Your task to perform on an android device: open app "eBay: The shopping marketplace" (install if not already installed) and enter user name: "articulated@icloud.com" and password: "excluding" Image 0: 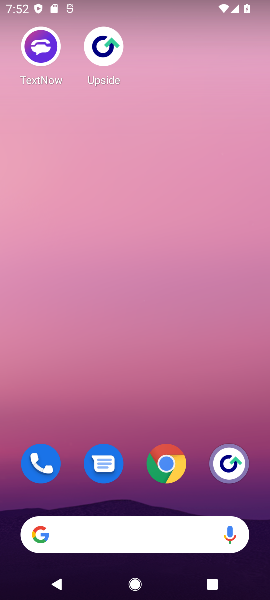
Step 0: drag from (126, 176) to (187, 12)
Your task to perform on an android device: open app "eBay: The shopping marketplace" (install if not already installed) and enter user name: "articulated@icloud.com" and password: "excluding" Image 1: 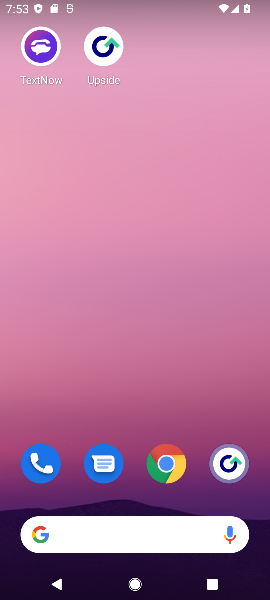
Step 1: drag from (118, 490) to (172, 0)
Your task to perform on an android device: open app "eBay: The shopping marketplace" (install if not already installed) and enter user name: "articulated@icloud.com" and password: "excluding" Image 2: 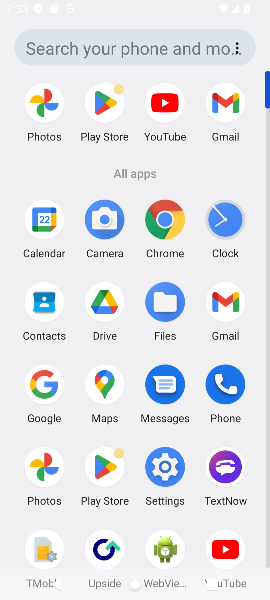
Step 2: click (105, 87)
Your task to perform on an android device: open app "eBay: The shopping marketplace" (install if not already installed) and enter user name: "articulated@icloud.com" and password: "excluding" Image 3: 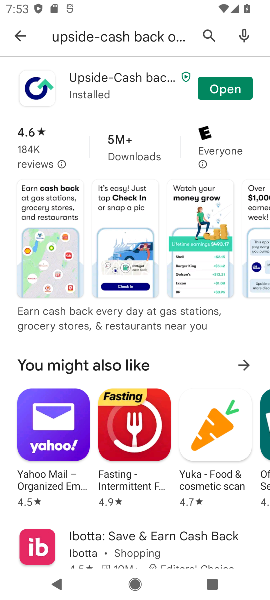
Step 3: click (20, 31)
Your task to perform on an android device: open app "eBay: The shopping marketplace" (install if not already installed) and enter user name: "articulated@icloud.com" and password: "excluding" Image 4: 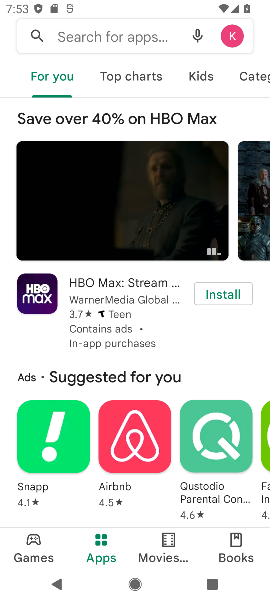
Step 4: click (64, 32)
Your task to perform on an android device: open app "eBay: The shopping marketplace" (install if not already installed) and enter user name: "articulated@icloud.com" and password: "excluding" Image 5: 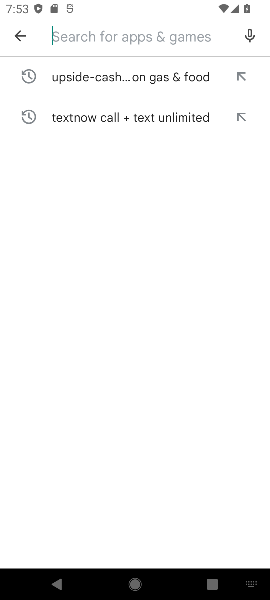
Step 5: type "eBay"
Your task to perform on an android device: open app "eBay: The shopping marketplace" (install if not already installed) and enter user name: "articulated@icloud.com" and password: "excluding" Image 6: 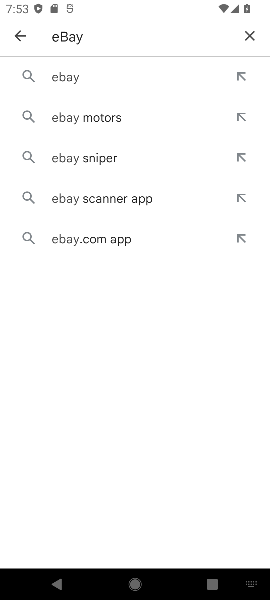
Step 6: click (66, 80)
Your task to perform on an android device: open app "eBay: The shopping marketplace" (install if not already installed) and enter user name: "articulated@icloud.com" and password: "excluding" Image 7: 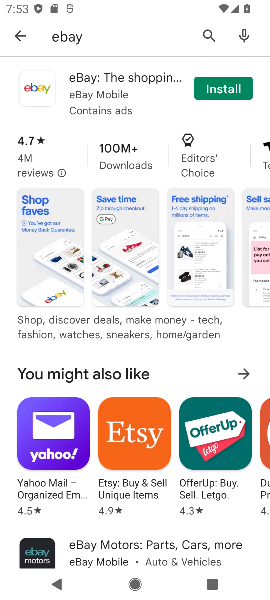
Step 7: click (217, 86)
Your task to perform on an android device: open app "eBay: The shopping marketplace" (install if not already installed) and enter user name: "articulated@icloud.com" and password: "excluding" Image 8: 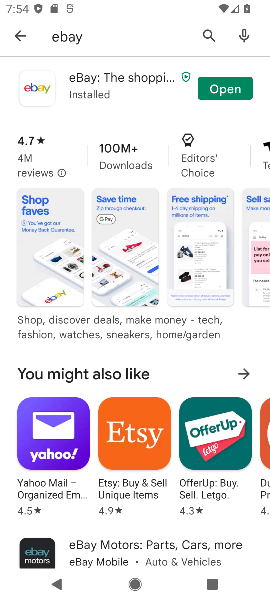
Step 8: click (228, 86)
Your task to perform on an android device: open app "eBay: The shopping marketplace" (install if not already installed) and enter user name: "articulated@icloud.com" and password: "excluding" Image 9: 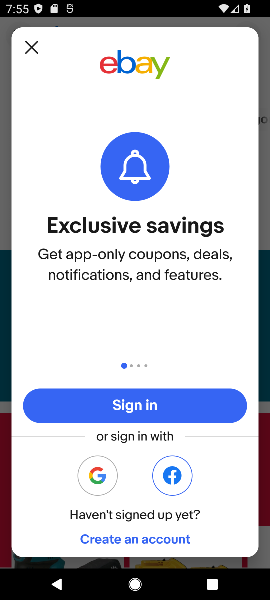
Step 9: task complete